Your task to perform on an android device: see tabs open on other devices in the chrome app Image 0: 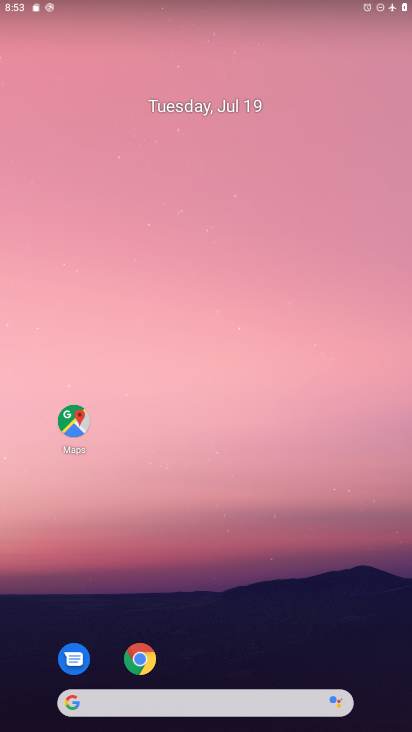
Step 0: drag from (169, 606) to (186, 270)
Your task to perform on an android device: see tabs open on other devices in the chrome app Image 1: 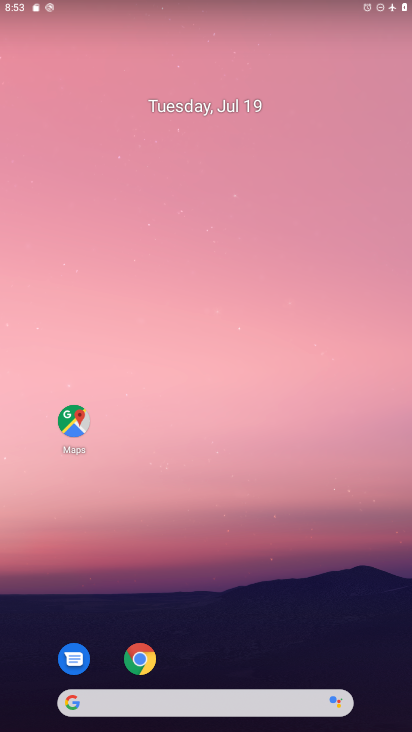
Step 1: drag from (248, 682) to (258, 261)
Your task to perform on an android device: see tabs open on other devices in the chrome app Image 2: 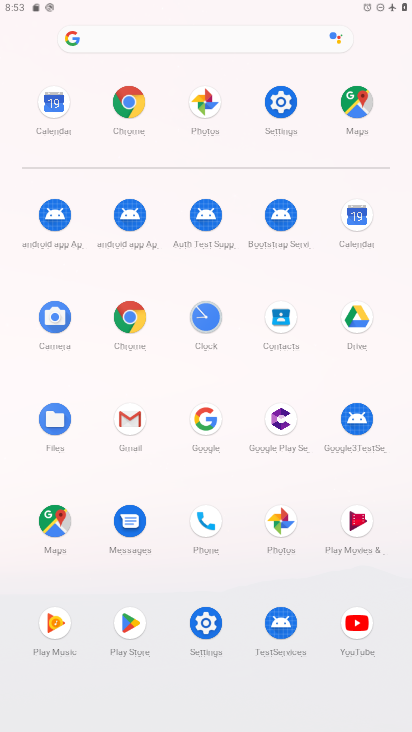
Step 2: click (137, 100)
Your task to perform on an android device: see tabs open on other devices in the chrome app Image 3: 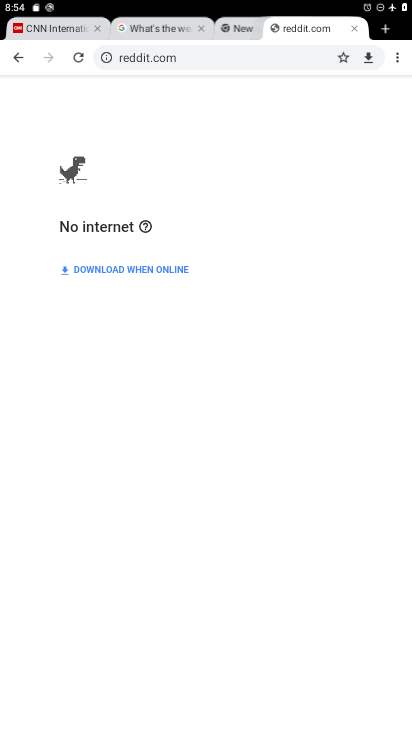
Step 3: click (405, 59)
Your task to perform on an android device: see tabs open on other devices in the chrome app Image 4: 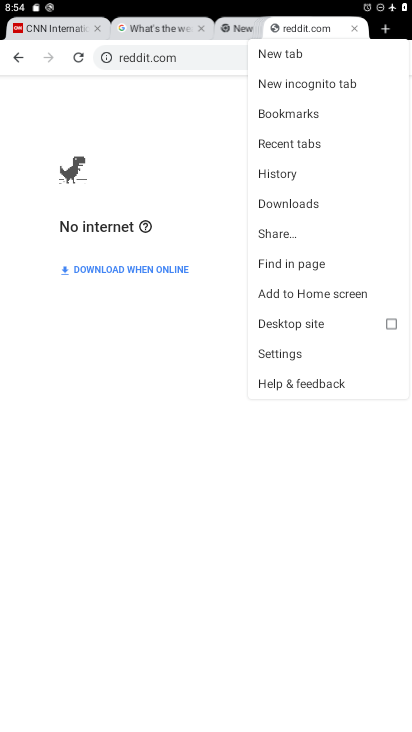
Step 4: click (292, 179)
Your task to perform on an android device: see tabs open on other devices in the chrome app Image 5: 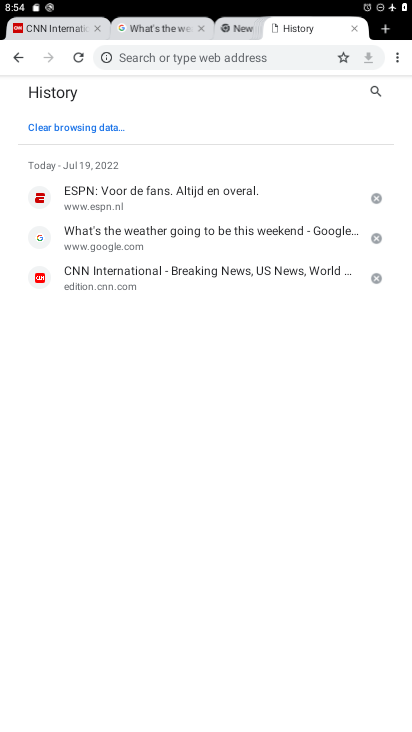
Step 5: task complete